Your task to perform on an android device: Open Google Chrome Image 0: 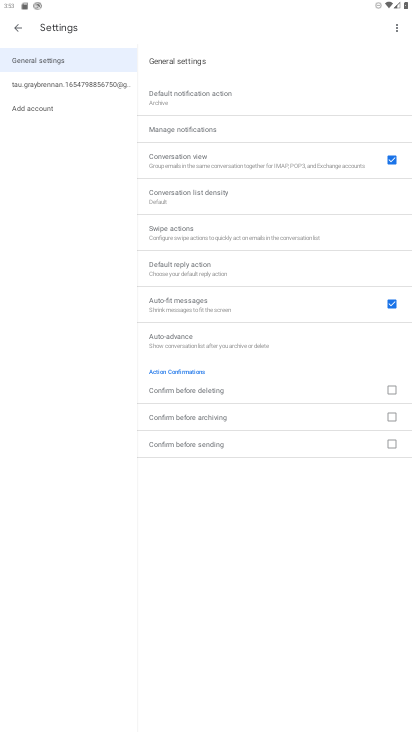
Step 0: press home button
Your task to perform on an android device: Open Google Chrome Image 1: 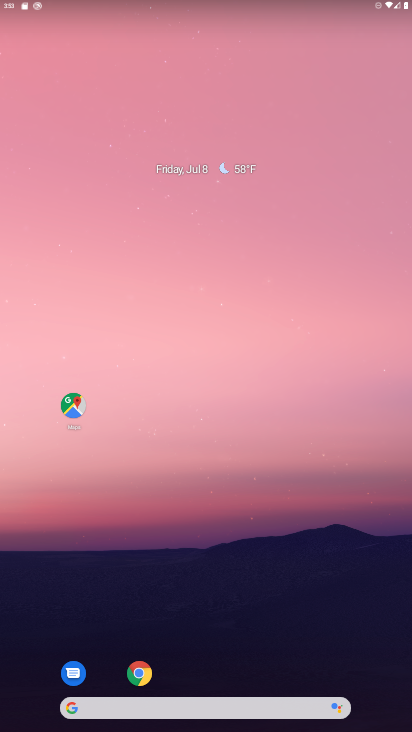
Step 1: click (139, 673)
Your task to perform on an android device: Open Google Chrome Image 2: 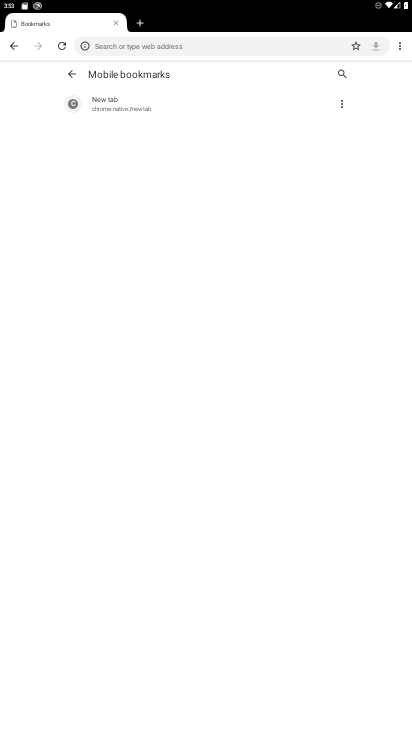
Step 2: click (14, 41)
Your task to perform on an android device: Open Google Chrome Image 3: 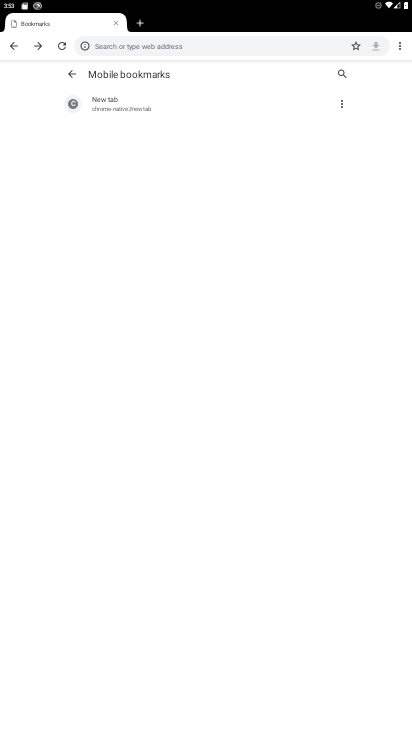
Step 3: click (10, 47)
Your task to perform on an android device: Open Google Chrome Image 4: 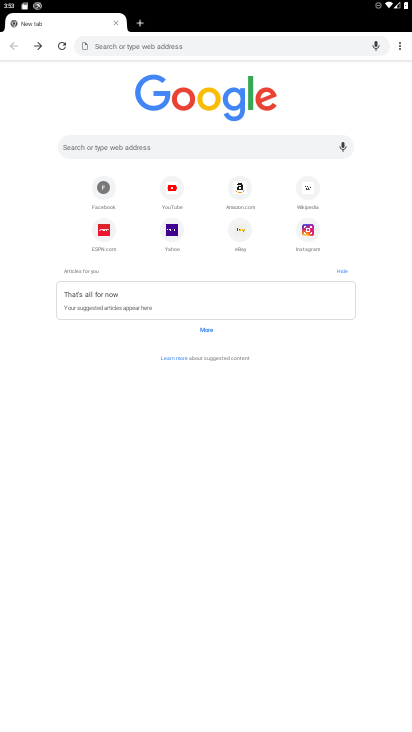
Step 4: task complete